Your task to perform on an android device: Find coffee shops on Maps Image 0: 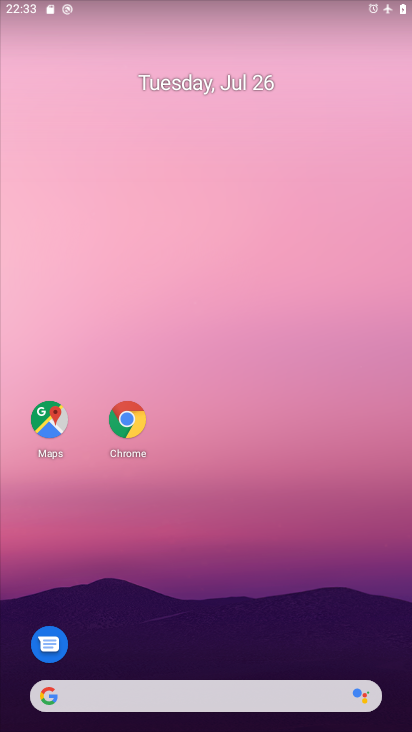
Step 0: drag from (222, 652) to (258, 185)
Your task to perform on an android device: Find coffee shops on Maps Image 1: 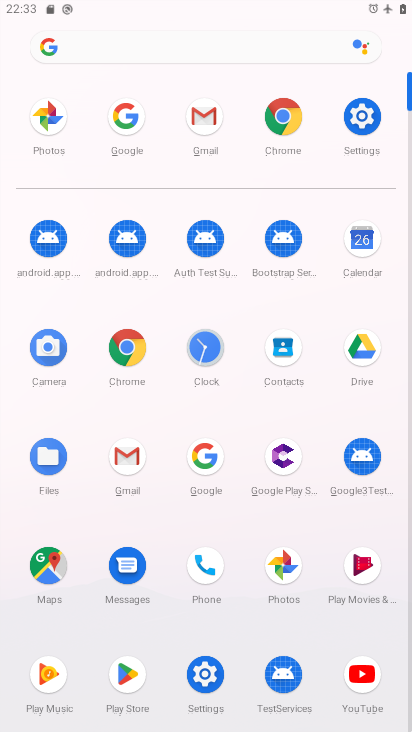
Step 1: click (50, 581)
Your task to perform on an android device: Find coffee shops on Maps Image 2: 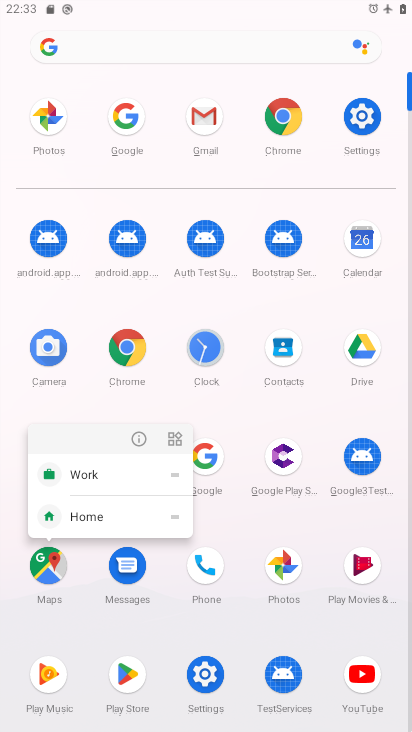
Step 2: click (50, 581)
Your task to perform on an android device: Find coffee shops on Maps Image 3: 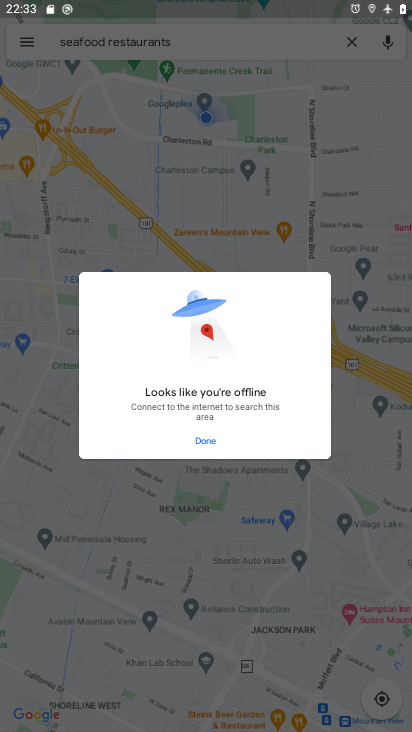
Step 3: click (192, 436)
Your task to perform on an android device: Find coffee shops on Maps Image 4: 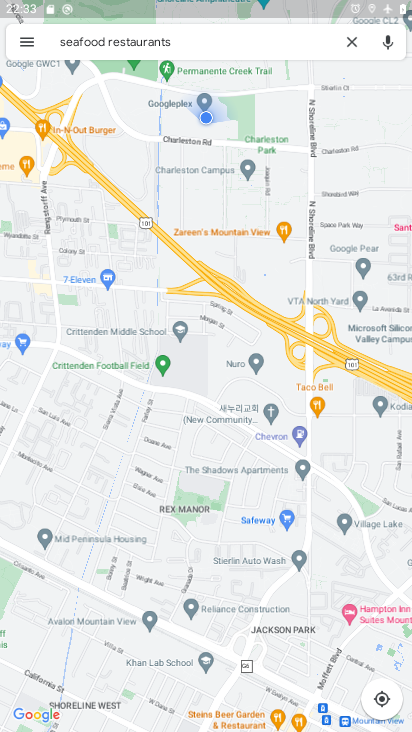
Step 4: click (352, 38)
Your task to perform on an android device: Find coffee shops on Maps Image 5: 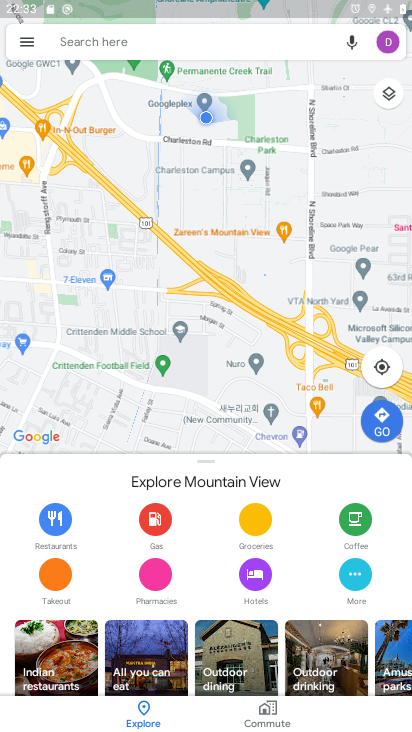
Step 5: click (230, 47)
Your task to perform on an android device: Find coffee shops on Maps Image 6: 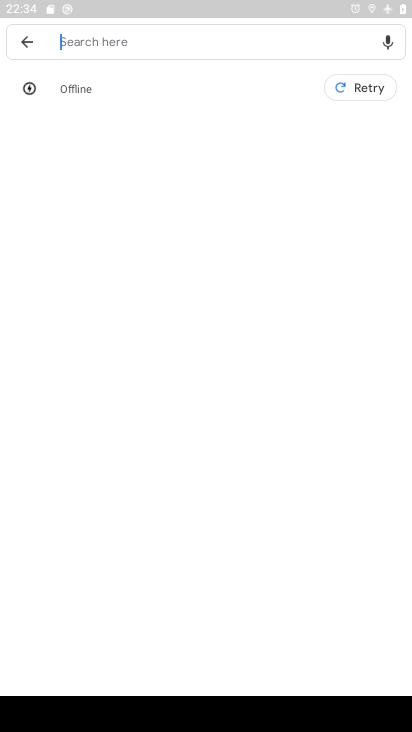
Step 6: click (159, 38)
Your task to perform on an android device: Find coffee shops on Maps Image 7: 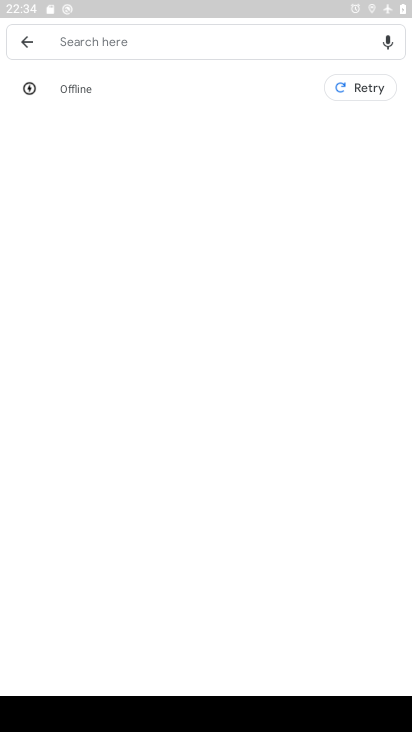
Step 7: type "coffee shop "
Your task to perform on an android device: Find coffee shops on Maps Image 8: 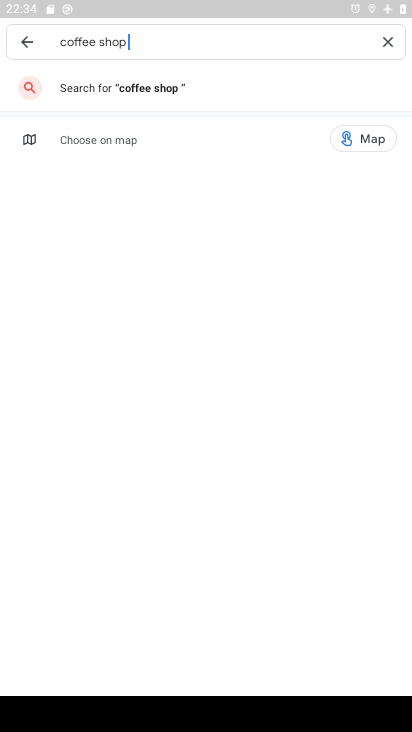
Step 8: click (175, 76)
Your task to perform on an android device: Find coffee shops on Maps Image 9: 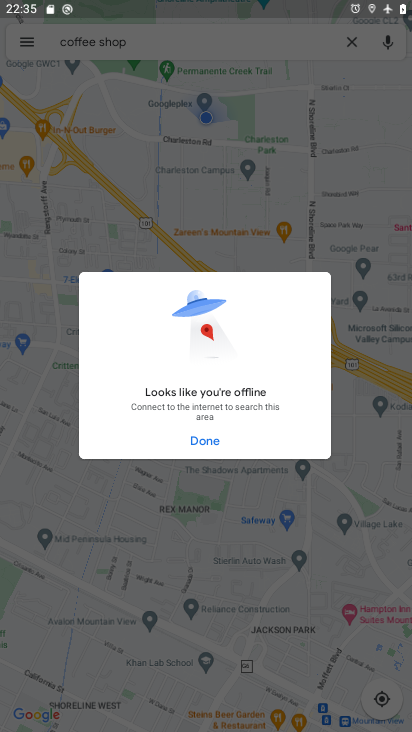
Step 9: task complete